Your task to perform on an android device: show emergency info Image 0: 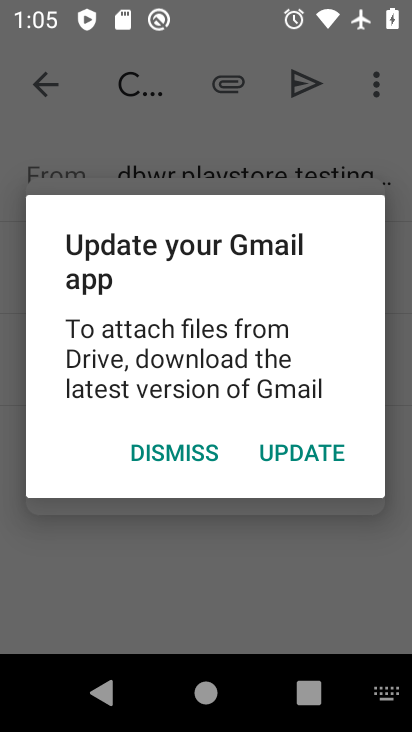
Step 0: press home button
Your task to perform on an android device: show emergency info Image 1: 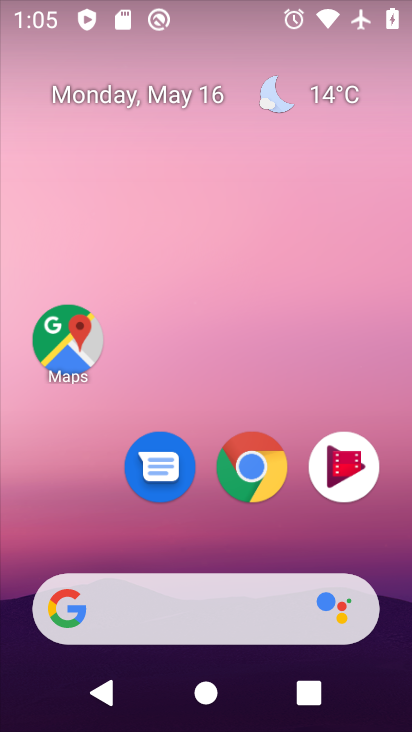
Step 1: drag from (256, 502) to (246, 133)
Your task to perform on an android device: show emergency info Image 2: 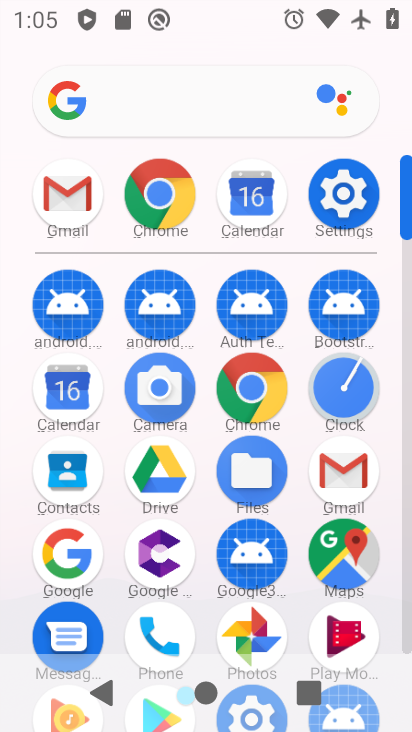
Step 2: click (331, 176)
Your task to perform on an android device: show emergency info Image 3: 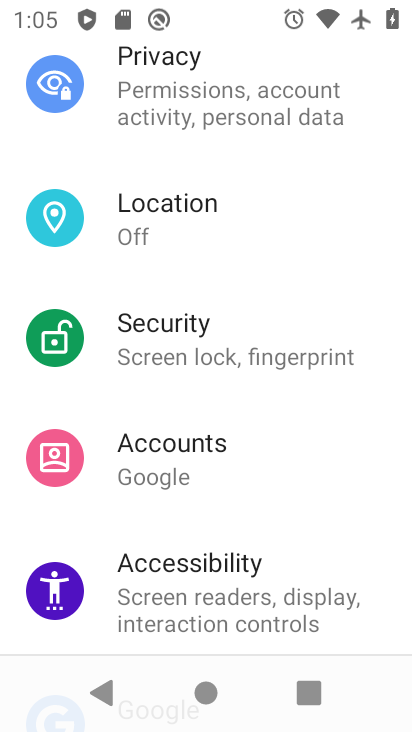
Step 3: drag from (211, 572) to (270, 103)
Your task to perform on an android device: show emergency info Image 4: 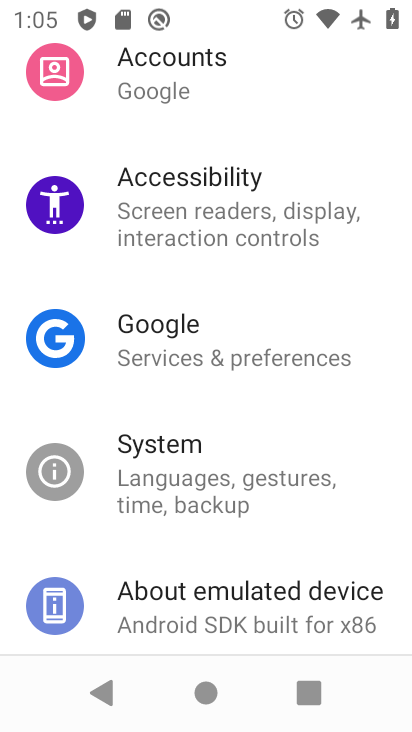
Step 4: drag from (218, 575) to (259, 197)
Your task to perform on an android device: show emergency info Image 5: 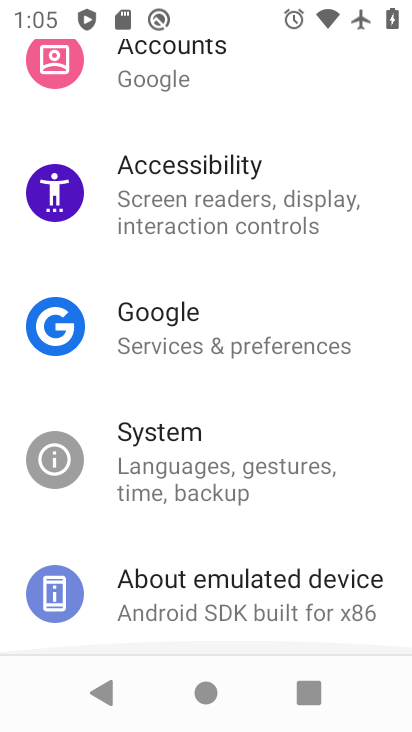
Step 5: click (257, 610)
Your task to perform on an android device: show emergency info Image 6: 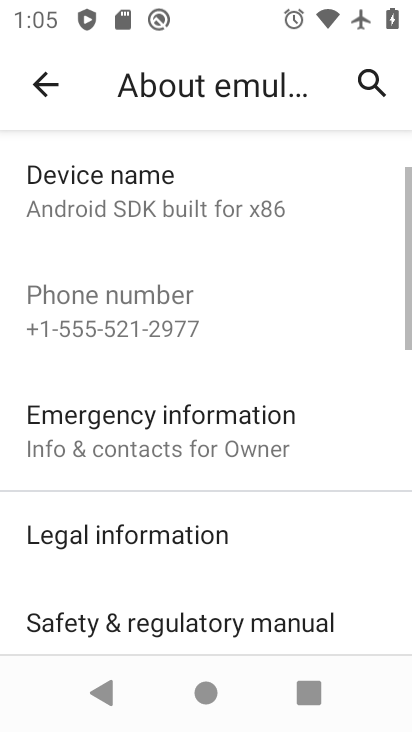
Step 6: click (177, 441)
Your task to perform on an android device: show emergency info Image 7: 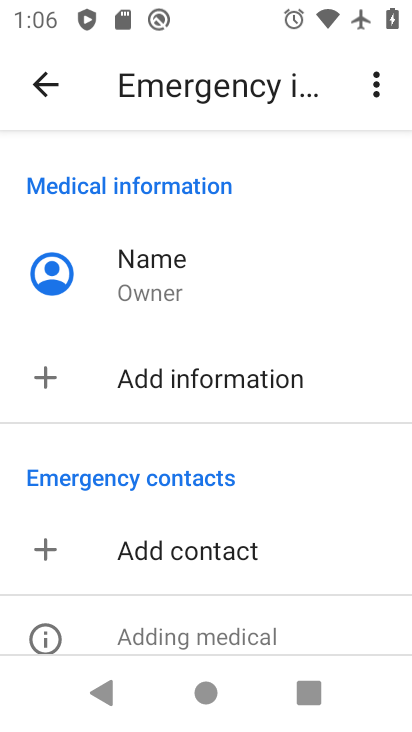
Step 7: task complete